Your task to perform on an android device: Go to wifi settings Image 0: 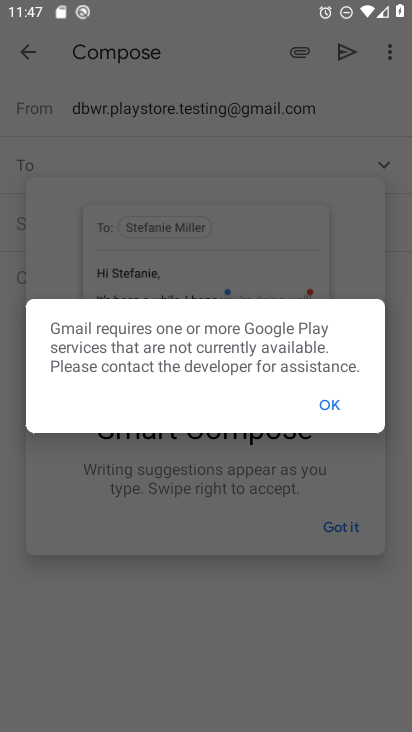
Step 0: press home button
Your task to perform on an android device: Go to wifi settings Image 1: 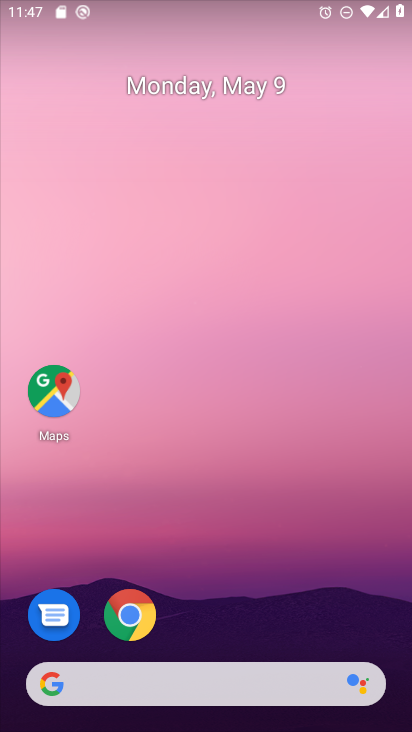
Step 1: drag from (283, 705) to (315, 202)
Your task to perform on an android device: Go to wifi settings Image 2: 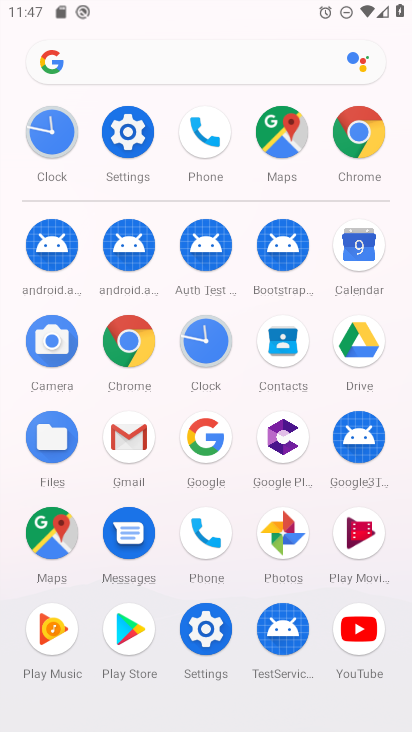
Step 2: click (207, 609)
Your task to perform on an android device: Go to wifi settings Image 3: 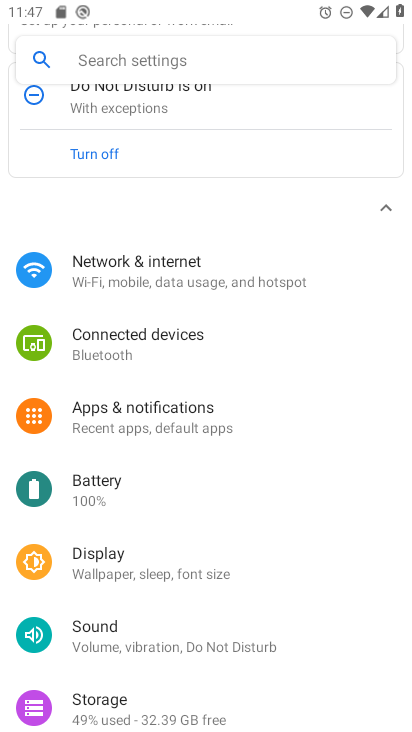
Step 3: click (151, 284)
Your task to perform on an android device: Go to wifi settings Image 4: 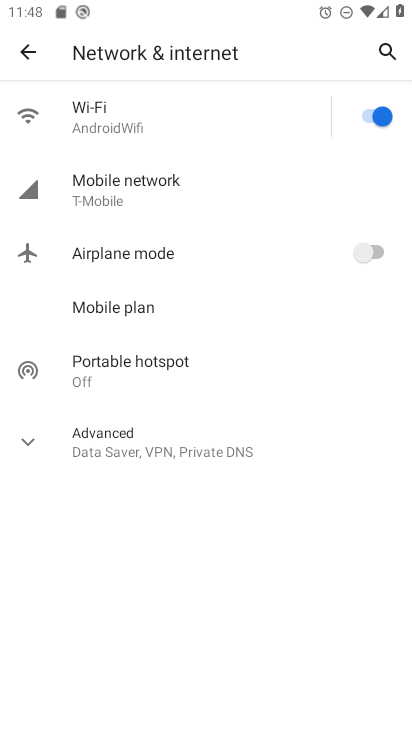
Step 4: click (182, 129)
Your task to perform on an android device: Go to wifi settings Image 5: 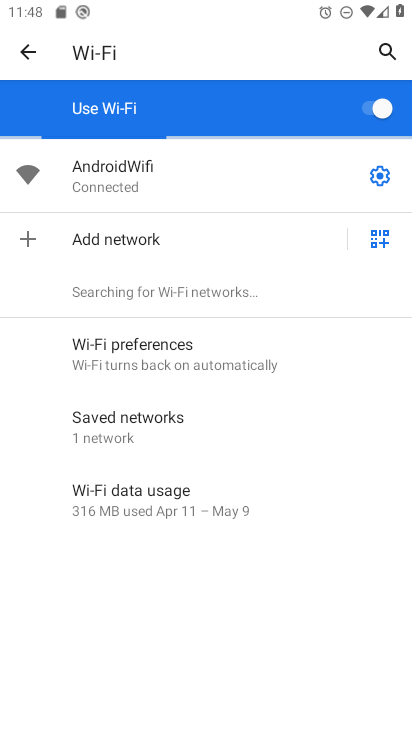
Step 5: task complete